Your task to perform on an android device: Open the calendar and show me this week's events Image 0: 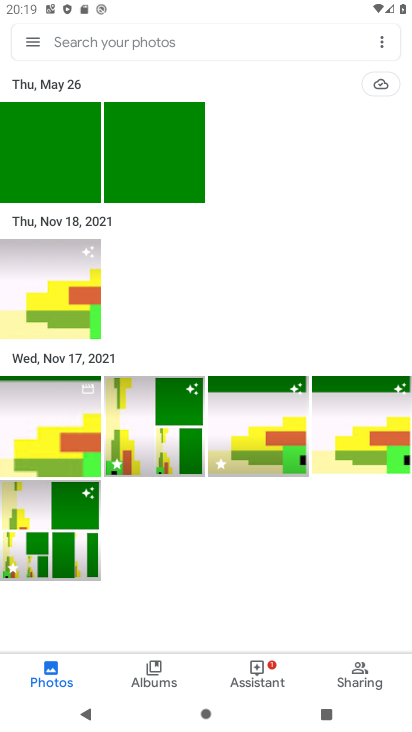
Step 0: press home button
Your task to perform on an android device: Open the calendar and show me this week's events Image 1: 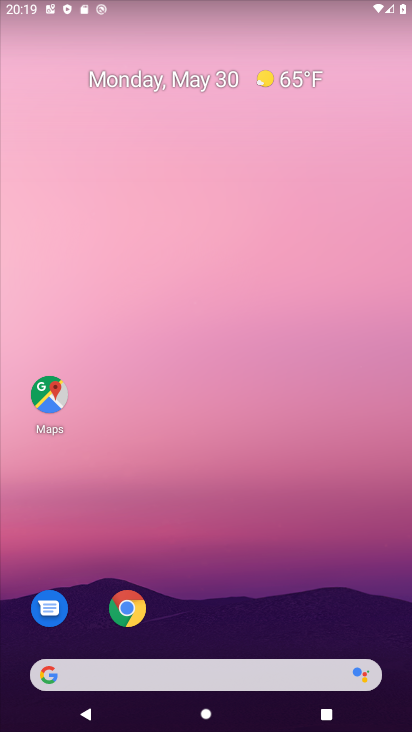
Step 1: drag from (223, 635) to (185, 235)
Your task to perform on an android device: Open the calendar and show me this week's events Image 2: 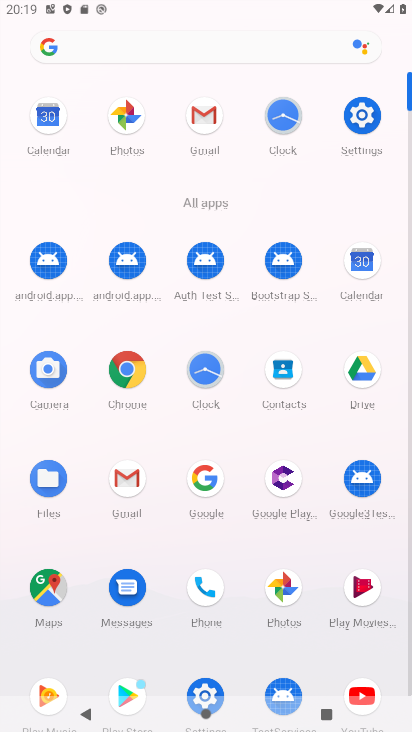
Step 2: click (51, 138)
Your task to perform on an android device: Open the calendar and show me this week's events Image 3: 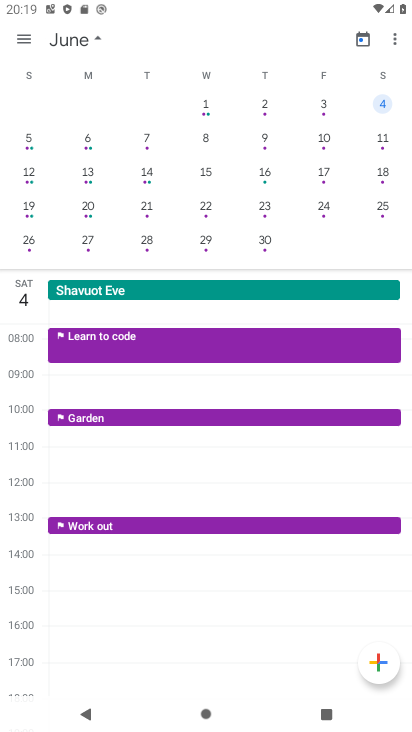
Step 3: drag from (211, 382) to (216, 491)
Your task to perform on an android device: Open the calendar and show me this week's events Image 4: 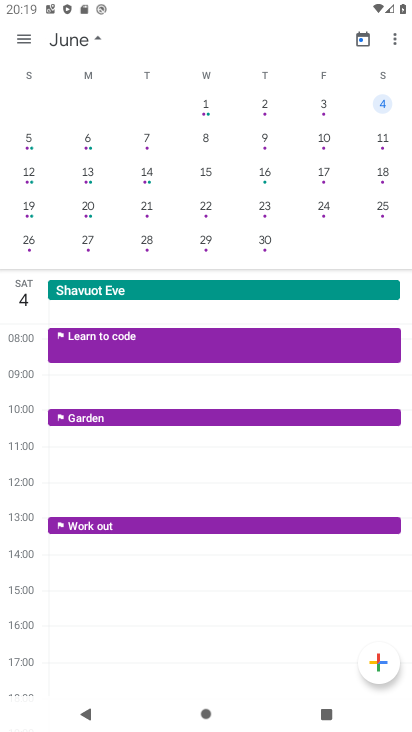
Step 4: click (20, 40)
Your task to perform on an android device: Open the calendar and show me this week's events Image 5: 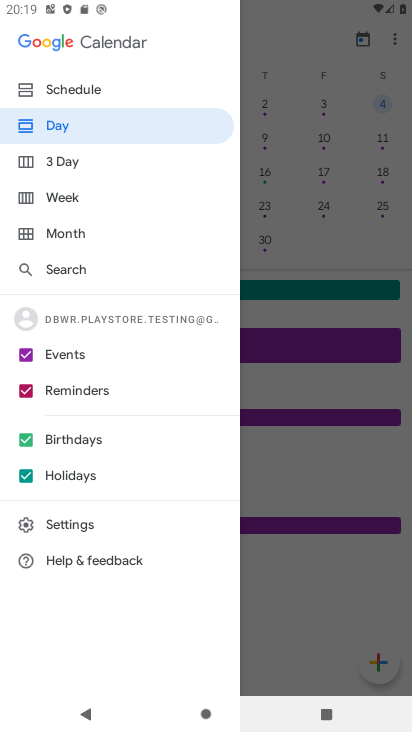
Step 5: click (121, 86)
Your task to perform on an android device: Open the calendar and show me this week's events Image 6: 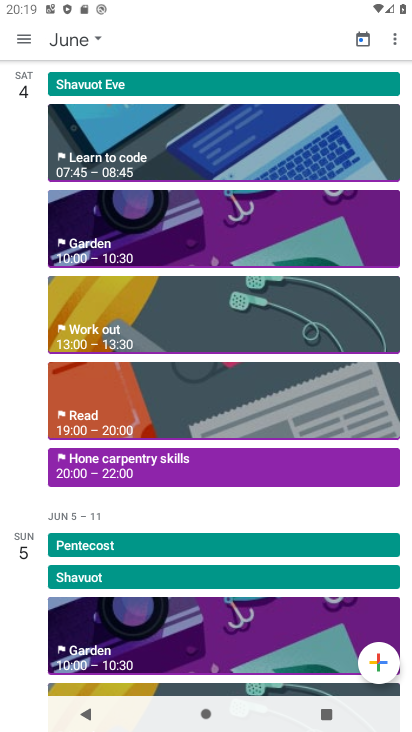
Step 6: task complete